Your task to perform on an android device: delete the emails in spam in the gmail app Image 0: 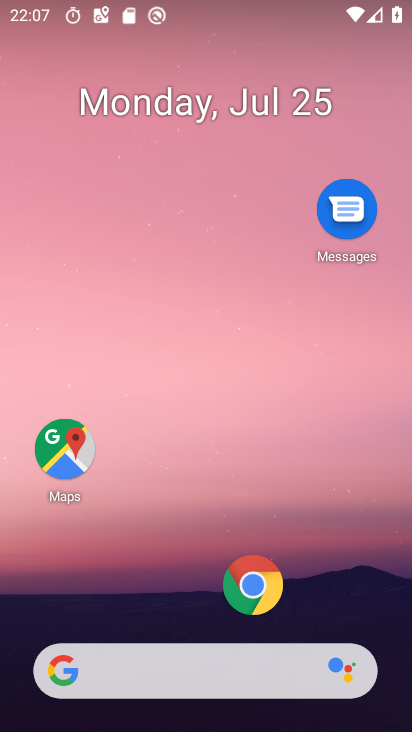
Step 0: press home button
Your task to perform on an android device: delete the emails in spam in the gmail app Image 1: 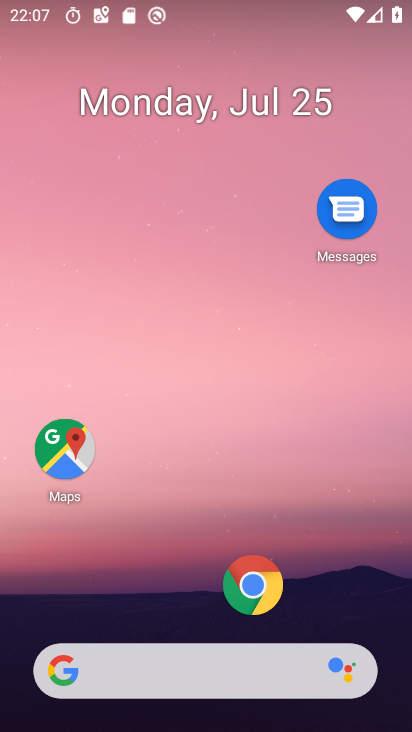
Step 1: drag from (201, 623) to (316, 43)
Your task to perform on an android device: delete the emails in spam in the gmail app Image 2: 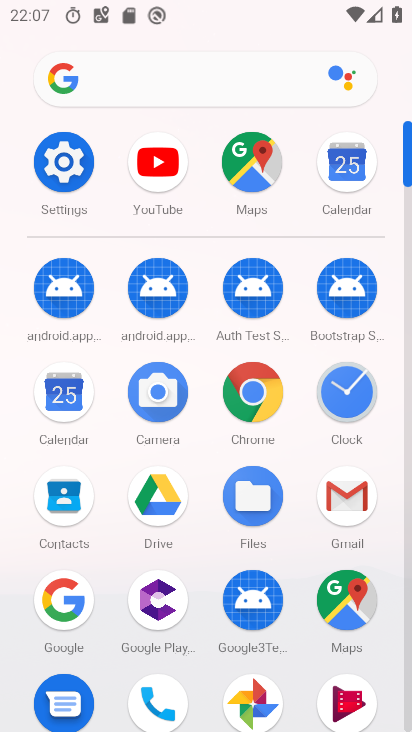
Step 2: click (352, 504)
Your task to perform on an android device: delete the emails in spam in the gmail app Image 3: 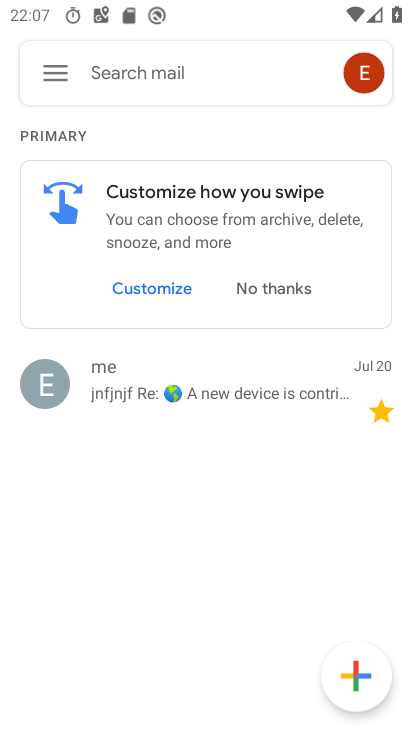
Step 3: click (62, 74)
Your task to perform on an android device: delete the emails in spam in the gmail app Image 4: 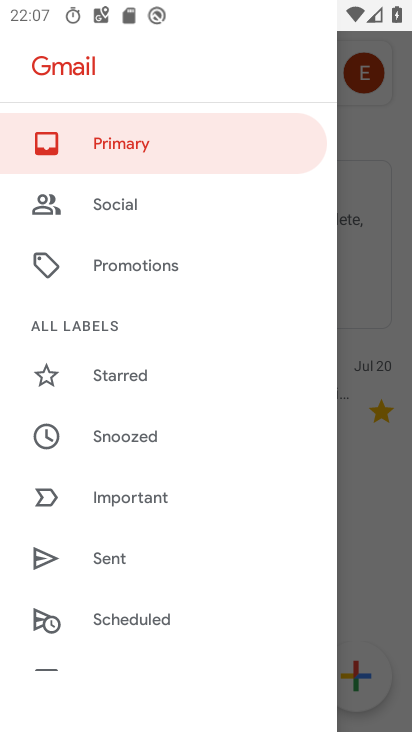
Step 4: drag from (195, 563) to (232, 198)
Your task to perform on an android device: delete the emails in spam in the gmail app Image 5: 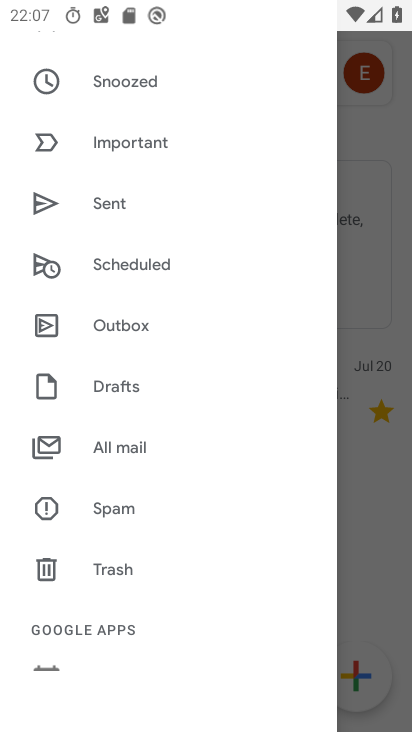
Step 5: click (127, 515)
Your task to perform on an android device: delete the emails in spam in the gmail app Image 6: 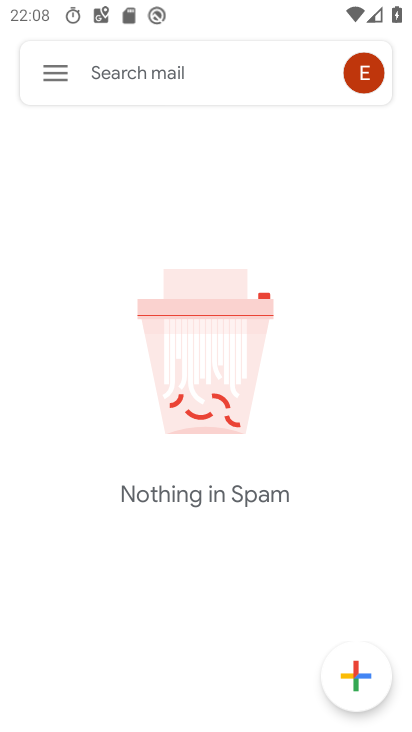
Step 6: task complete